Your task to perform on an android device: Go to Android settings Image 0: 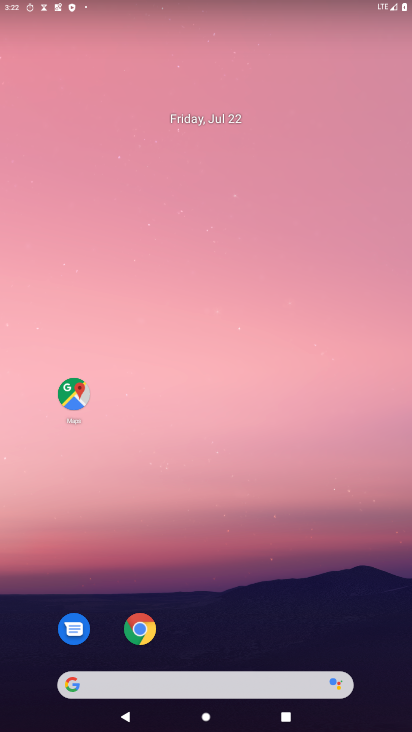
Step 0: drag from (287, 682) to (340, 26)
Your task to perform on an android device: Go to Android settings Image 1: 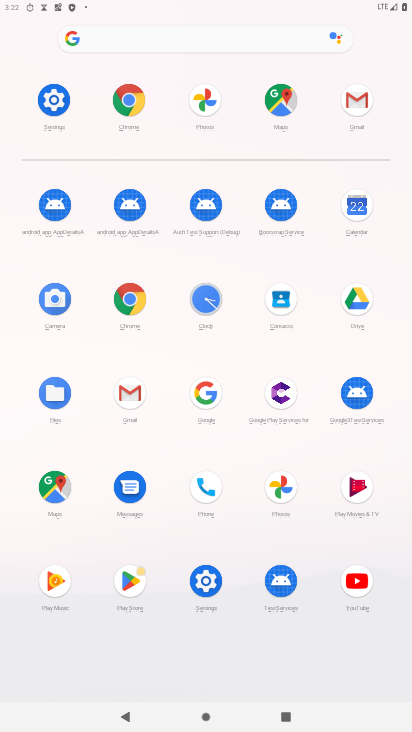
Step 1: click (54, 105)
Your task to perform on an android device: Go to Android settings Image 2: 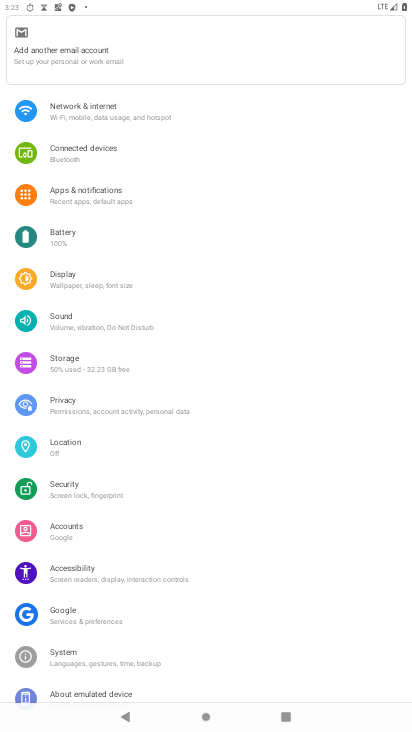
Step 2: drag from (129, 683) to (120, 409)
Your task to perform on an android device: Go to Android settings Image 3: 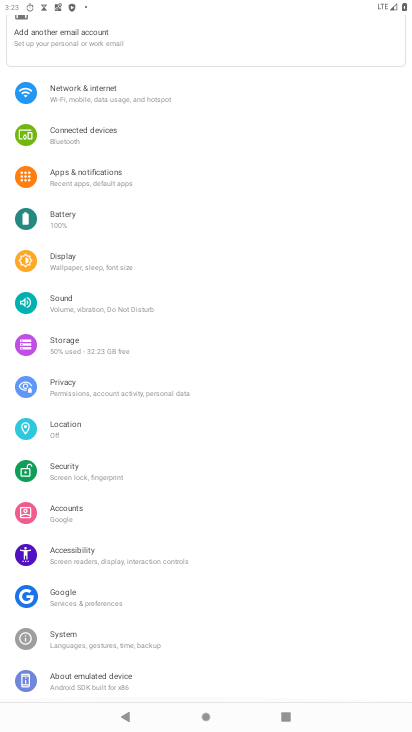
Step 3: click (126, 678)
Your task to perform on an android device: Go to Android settings Image 4: 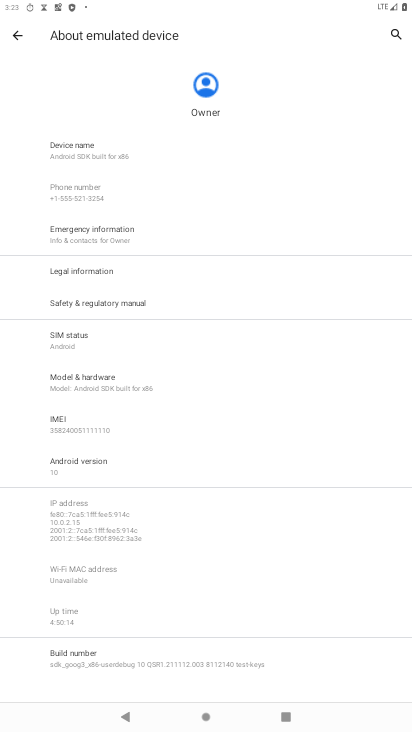
Step 4: click (120, 460)
Your task to perform on an android device: Go to Android settings Image 5: 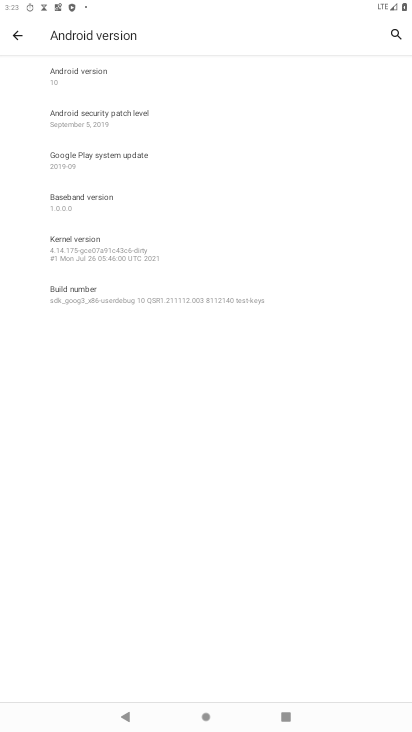
Step 5: task complete